Your task to perform on an android device: empty trash in google photos Image 0: 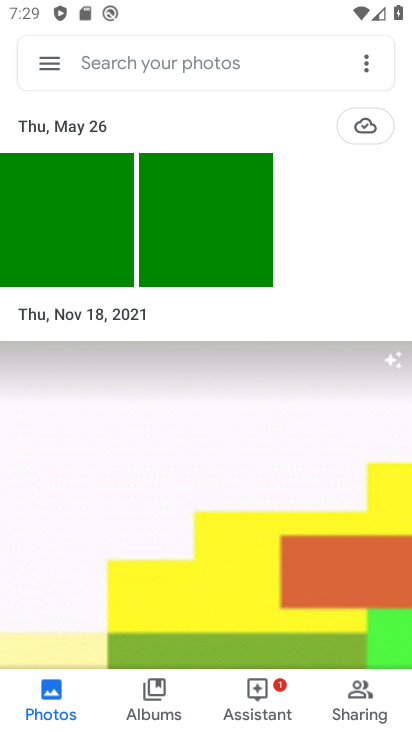
Step 0: press home button
Your task to perform on an android device: empty trash in google photos Image 1: 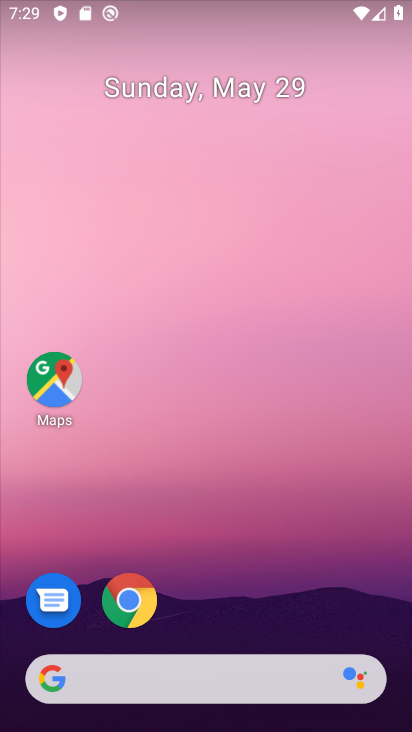
Step 1: drag from (258, 598) to (271, 88)
Your task to perform on an android device: empty trash in google photos Image 2: 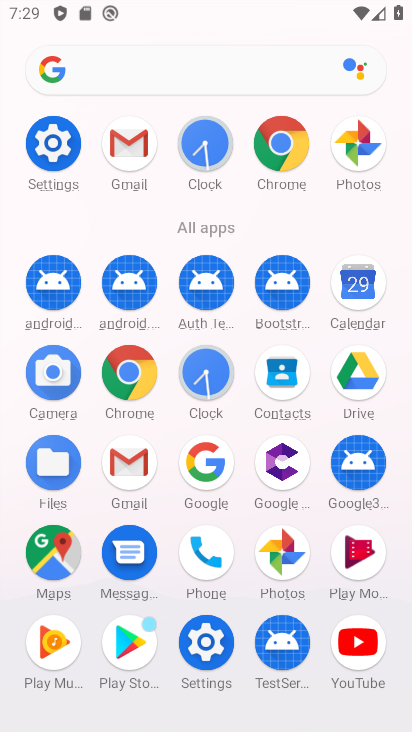
Step 2: click (306, 559)
Your task to perform on an android device: empty trash in google photos Image 3: 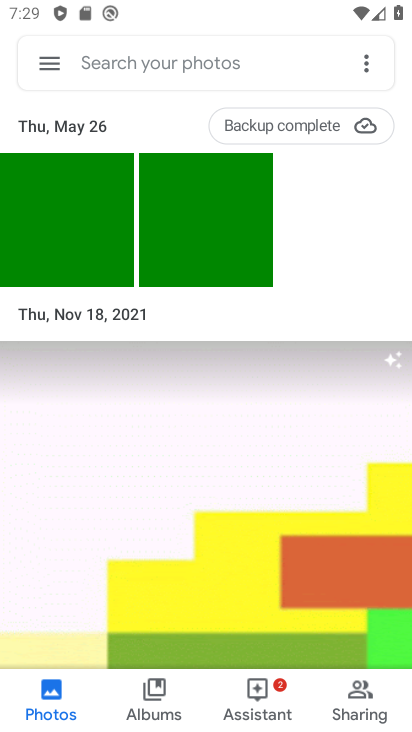
Step 3: click (38, 58)
Your task to perform on an android device: empty trash in google photos Image 4: 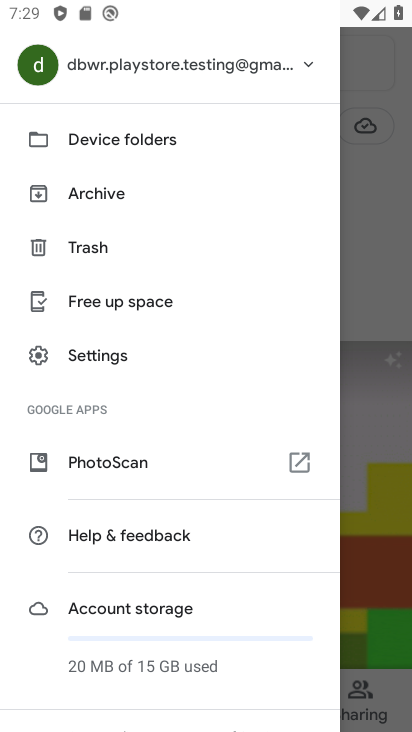
Step 4: click (98, 244)
Your task to perform on an android device: empty trash in google photos Image 5: 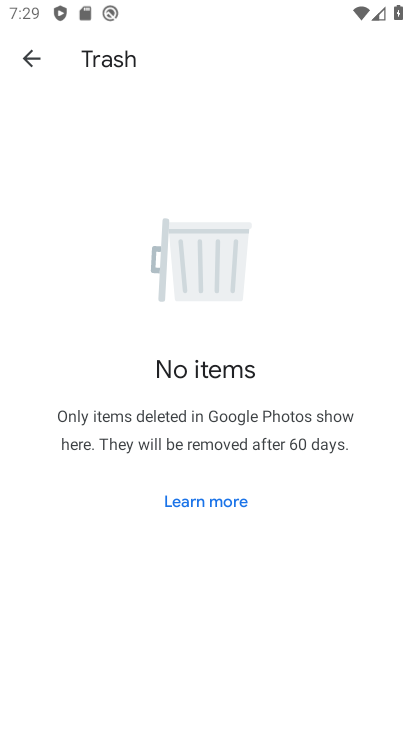
Step 5: task complete